Your task to perform on an android device: turn off sleep mode Image 0: 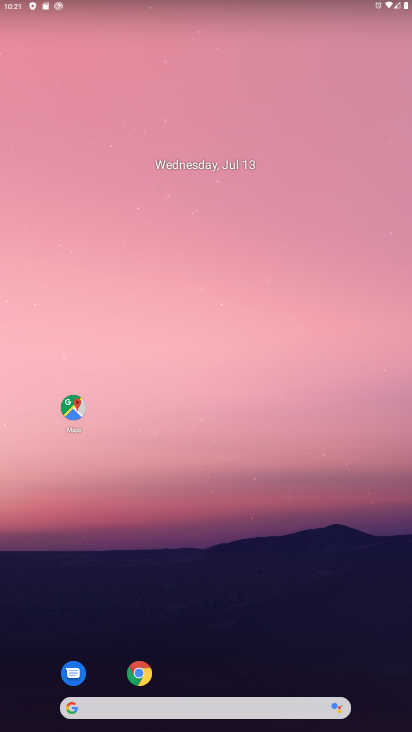
Step 0: drag from (211, 695) to (163, 255)
Your task to perform on an android device: turn off sleep mode Image 1: 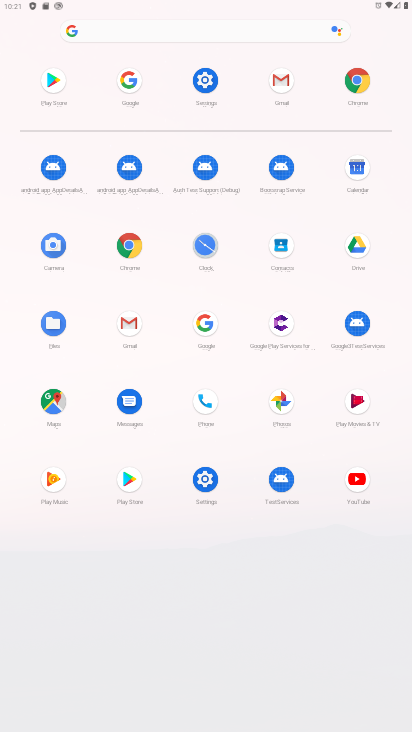
Step 1: click (214, 86)
Your task to perform on an android device: turn off sleep mode Image 2: 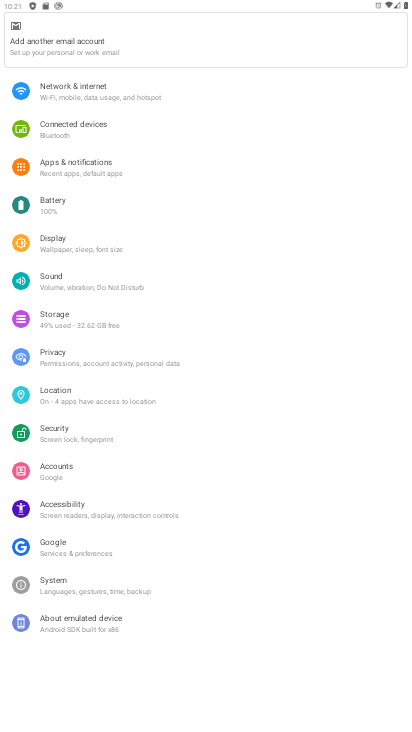
Step 2: click (101, 249)
Your task to perform on an android device: turn off sleep mode Image 3: 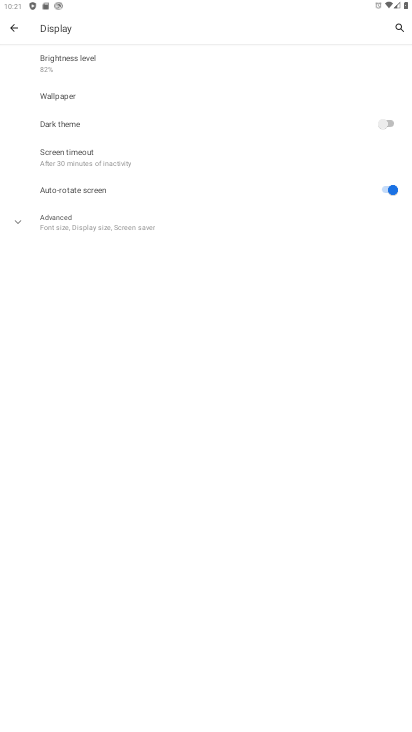
Step 3: click (60, 156)
Your task to perform on an android device: turn off sleep mode Image 4: 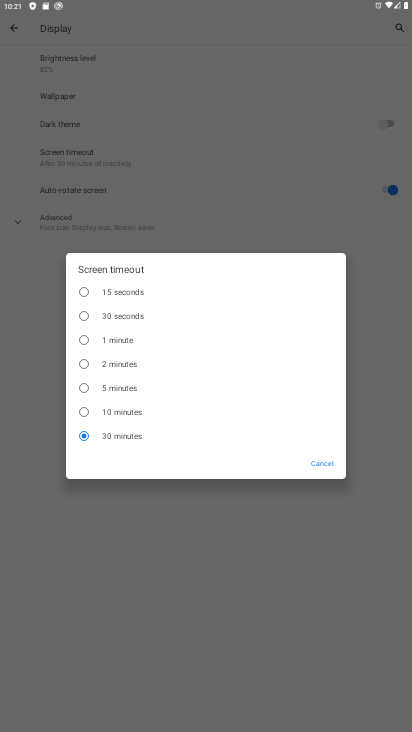
Step 4: click (121, 290)
Your task to perform on an android device: turn off sleep mode Image 5: 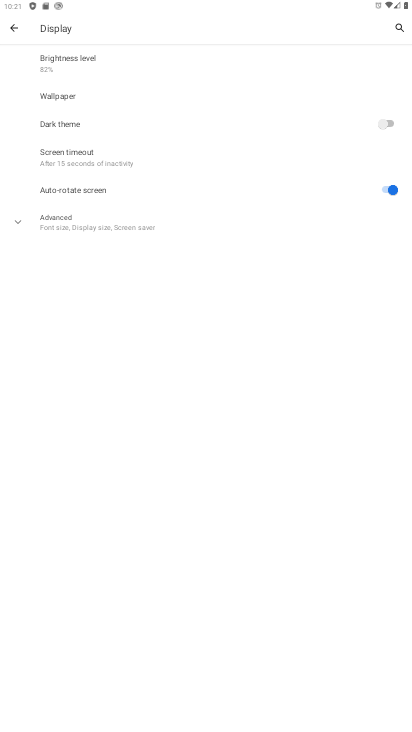
Step 5: task complete